Your task to perform on an android device: Play the last video I watched on Youtube Image 0: 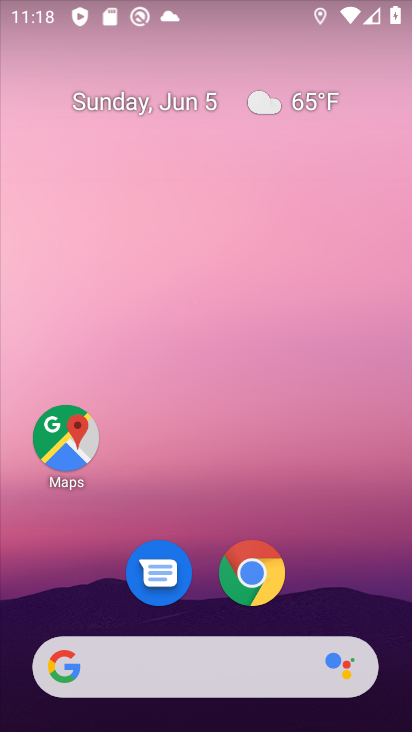
Step 0: press home button
Your task to perform on an android device: Play the last video I watched on Youtube Image 1: 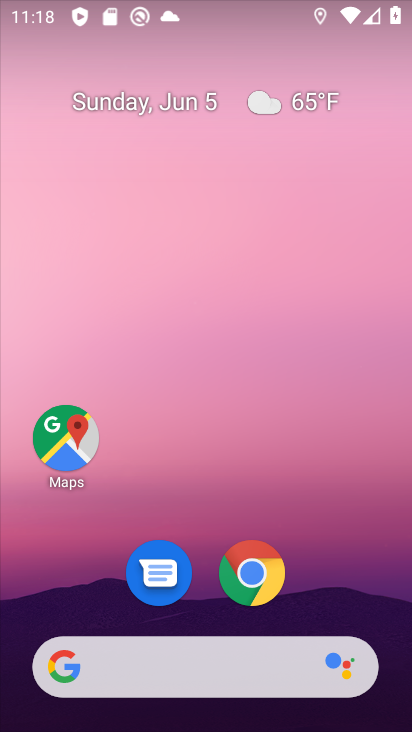
Step 1: press home button
Your task to perform on an android device: Play the last video I watched on Youtube Image 2: 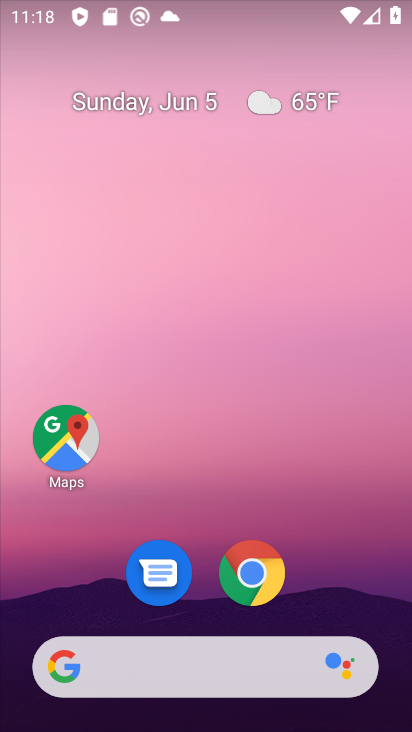
Step 2: drag from (208, 614) to (248, 61)
Your task to perform on an android device: Play the last video I watched on Youtube Image 3: 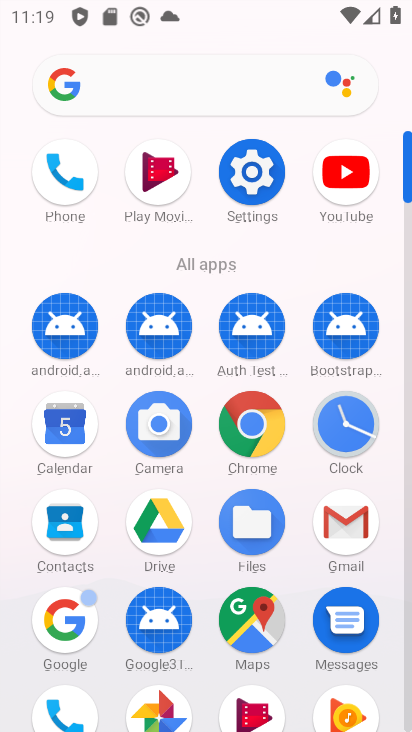
Step 3: click (342, 167)
Your task to perform on an android device: Play the last video I watched on Youtube Image 4: 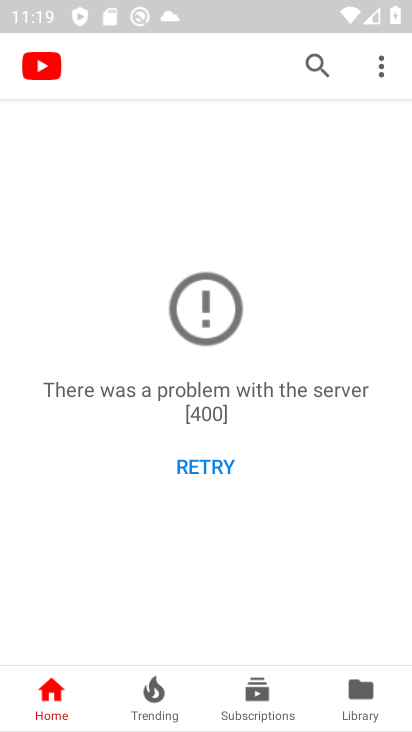
Step 4: click (357, 704)
Your task to perform on an android device: Play the last video I watched on Youtube Image 5: 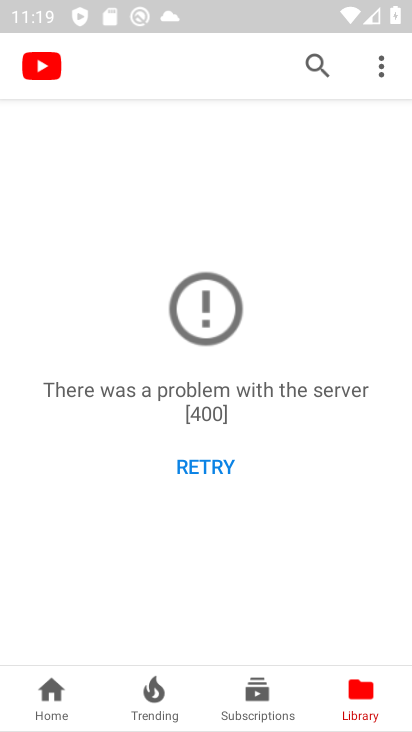
Step 5: click (213, 469)
Your task to perform on an android device: Play the last video I watched on Youtube Image 6: 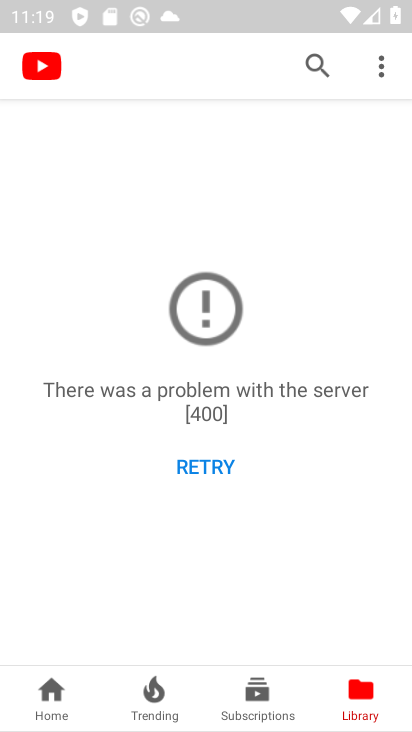
Step 6: task complete